Your task to perform on an android device: Go to Google maps Image 0: 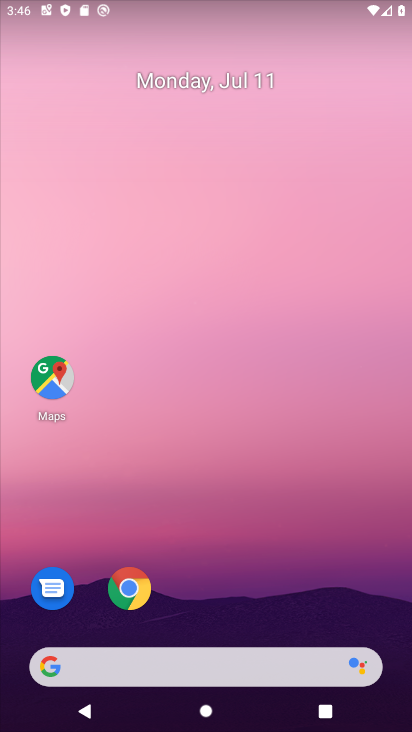
Step 0: press home button
Your task to perform on an android device: Go to Google maps Image 1: 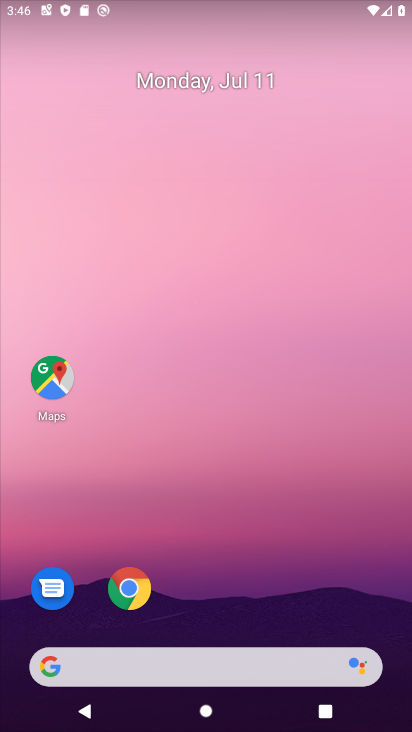
Step 1: click (51, 385)
Your task to perform on an android device: Go to Google maps Image 2: 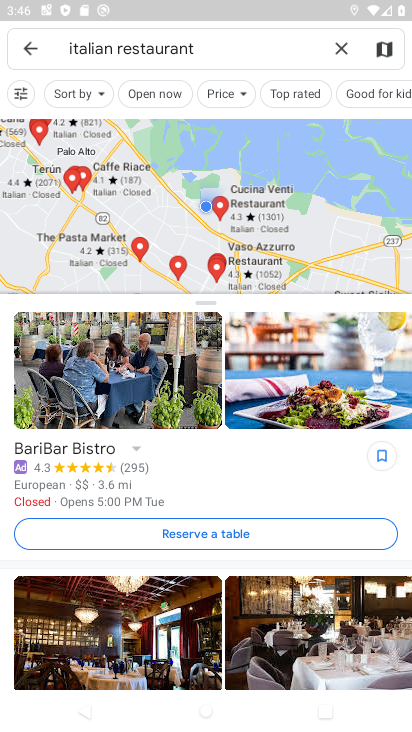
Step 2: click (25, 46)
Your task to perform on an android device: Go to Google maps Image 3: 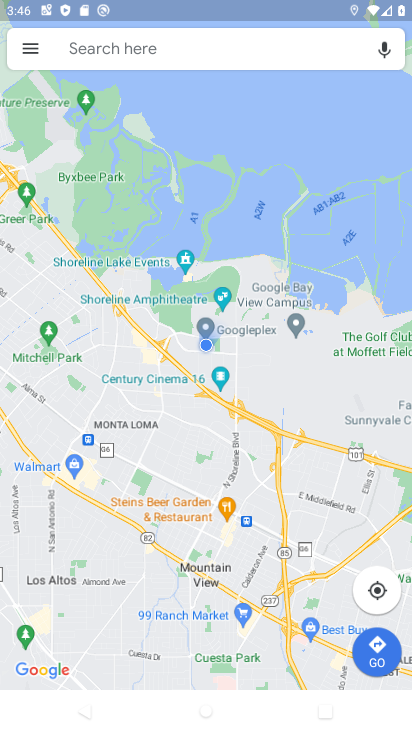
Step 3: task complete